Your task to perform on an android device: visit the assistant section in the google photos Image 0: 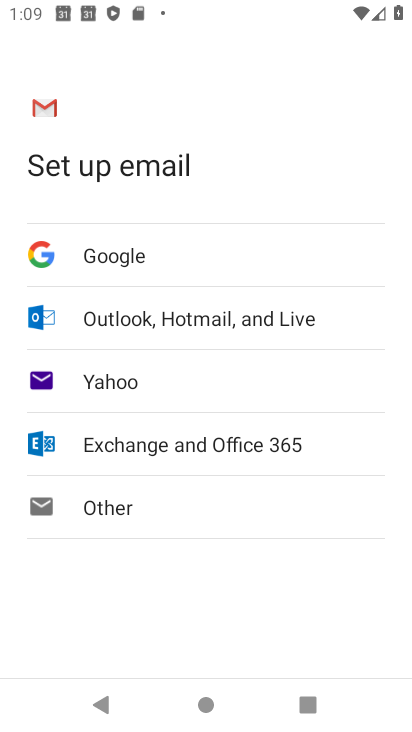
Step 0: press home button
Your task to perform on an android device: visit the assistant section in the google photos Image 1: 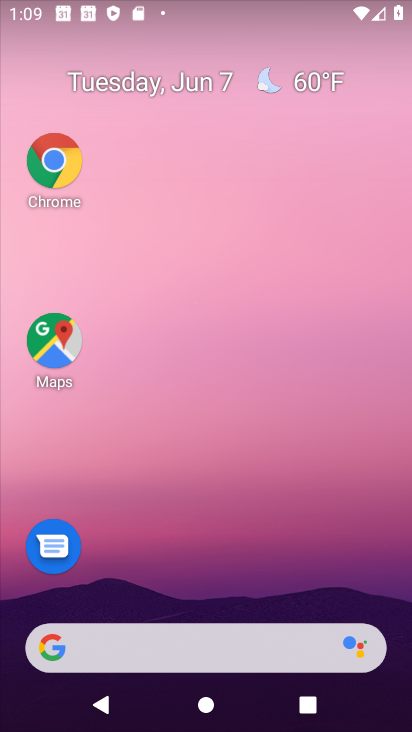
Step 1: drag from (225, 516) to (280, 5)
Your task to perform on an android device: visit the assistant section in the google photos Image 2: 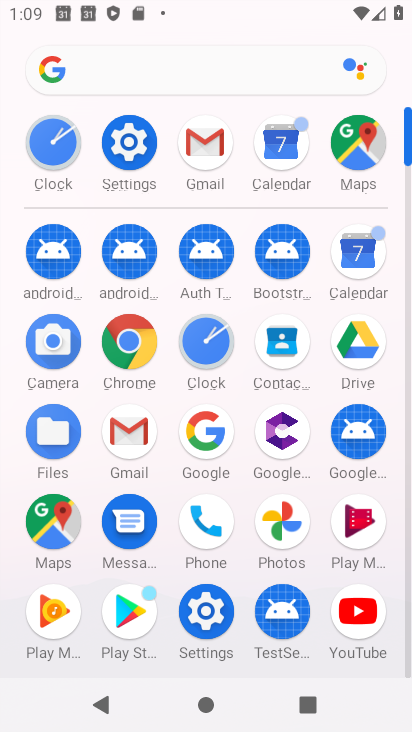
Step 2: click (304, 515)
Your task to perform on an android device: visit the assistant section in the google photos Image 3: 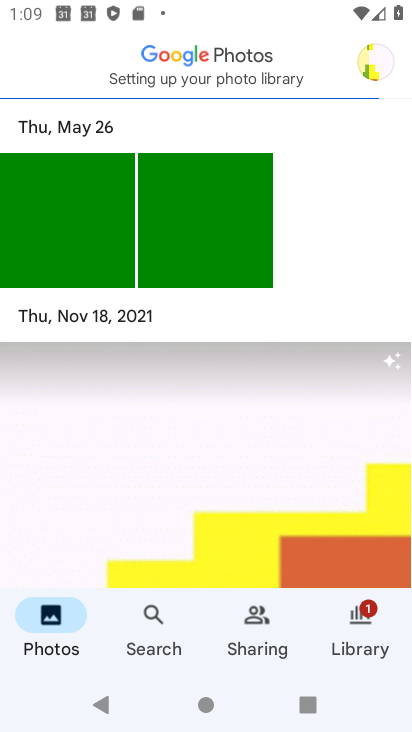
Step 3: task complete